Your task to perform on an android device: What is the news today? Image 0: 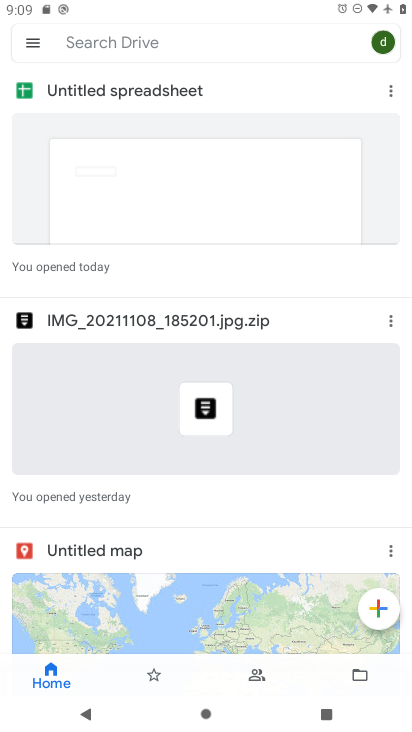
Step 0: press home button
Your task to perform on an android device: What is the news today? Image 1: 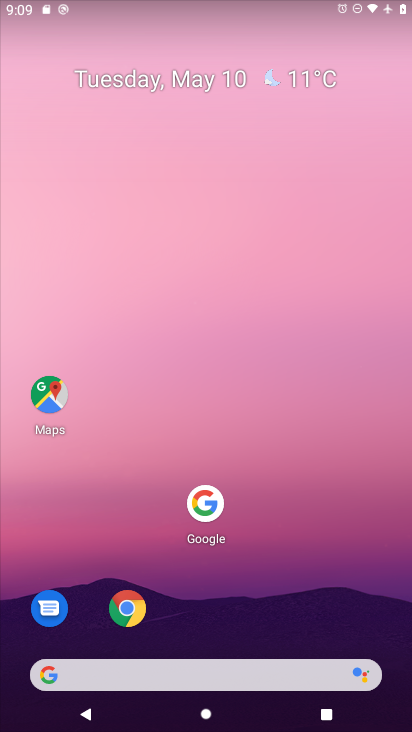
Step 1: click (49, 678)
Your task to perform on an android device: What is the news today? Image 2: 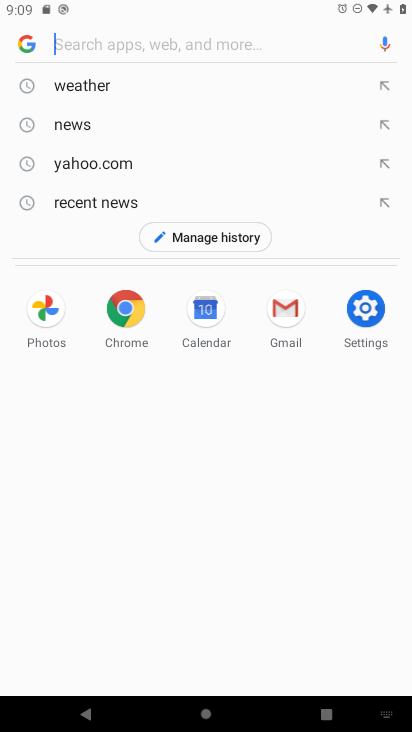
Step 2: click (75, 121)
Your task to perform on an android device: What is the news today? Image 3: 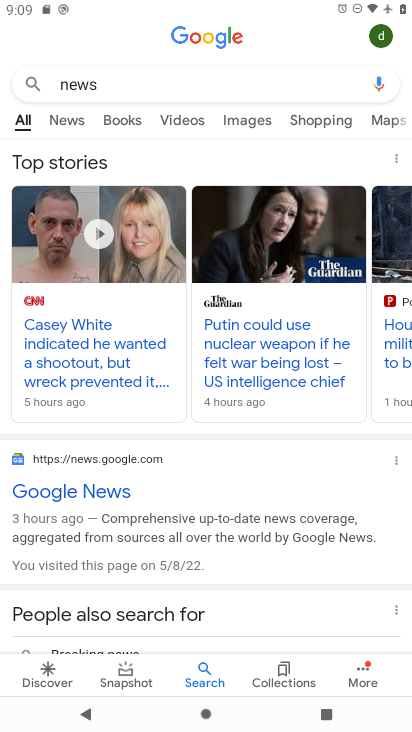
Step 3: click (161, 103)
Your task to perform on an android device: What is the news today? Image 4: 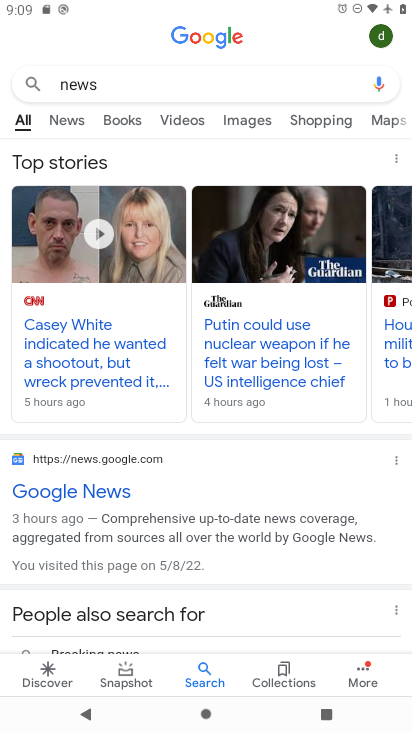
Step 4: click (71, 114)
Your task to perform on an android device: What is the news today? Image 5: 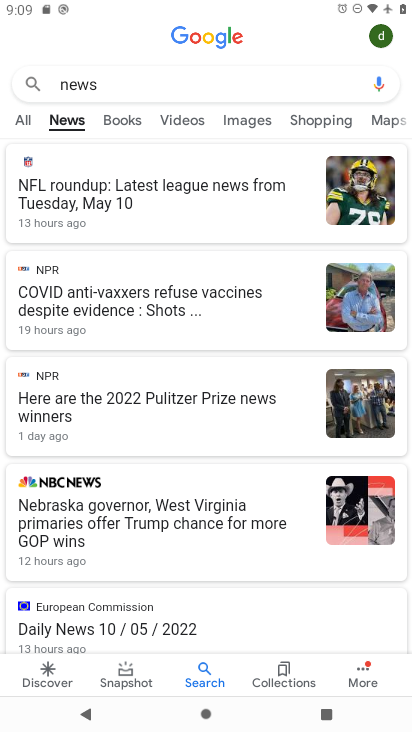
Step 5: task complete